Your task to perform on an android device: check out phone information Image 0: 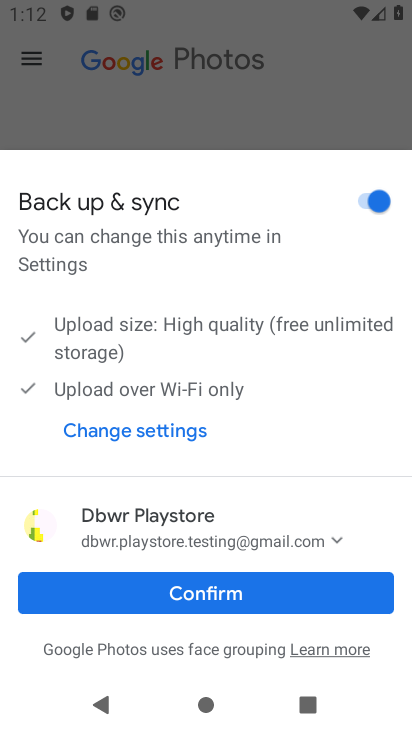
Step 0: press home button
Your task to perform on an android device: check out phone information Image 1: 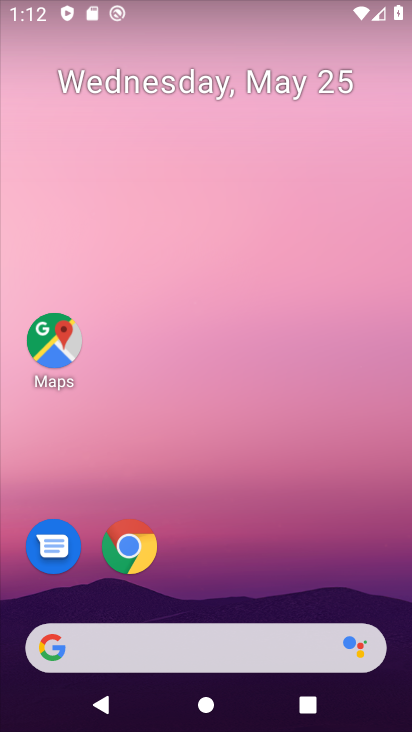
Step 1: drag from (329, 571) to (331, 191)
Your task to perform on an android device: check out phone information Image 2: 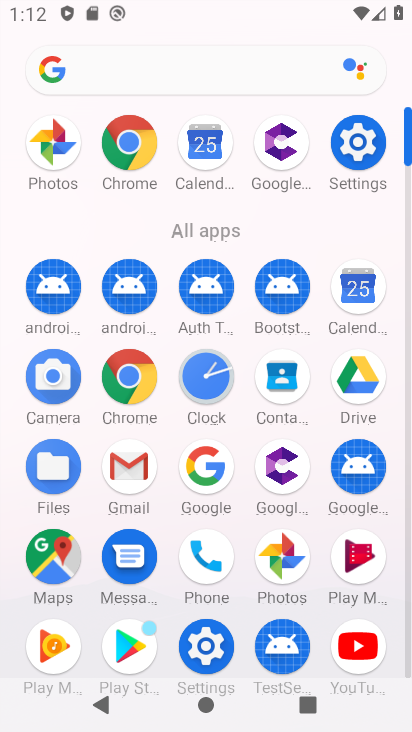
Step 2: click (203, 562)
Your task to perform on an android device: check out phone information Image 3: 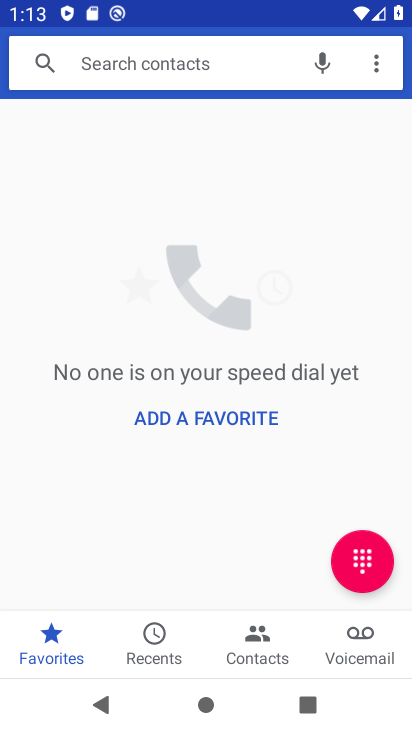
Step 3: task complete